Your task to perform on an android device: open app "TextNow: Call + Text Unlimited" (install if not already installed), go to login, and select forgot password Image 0: 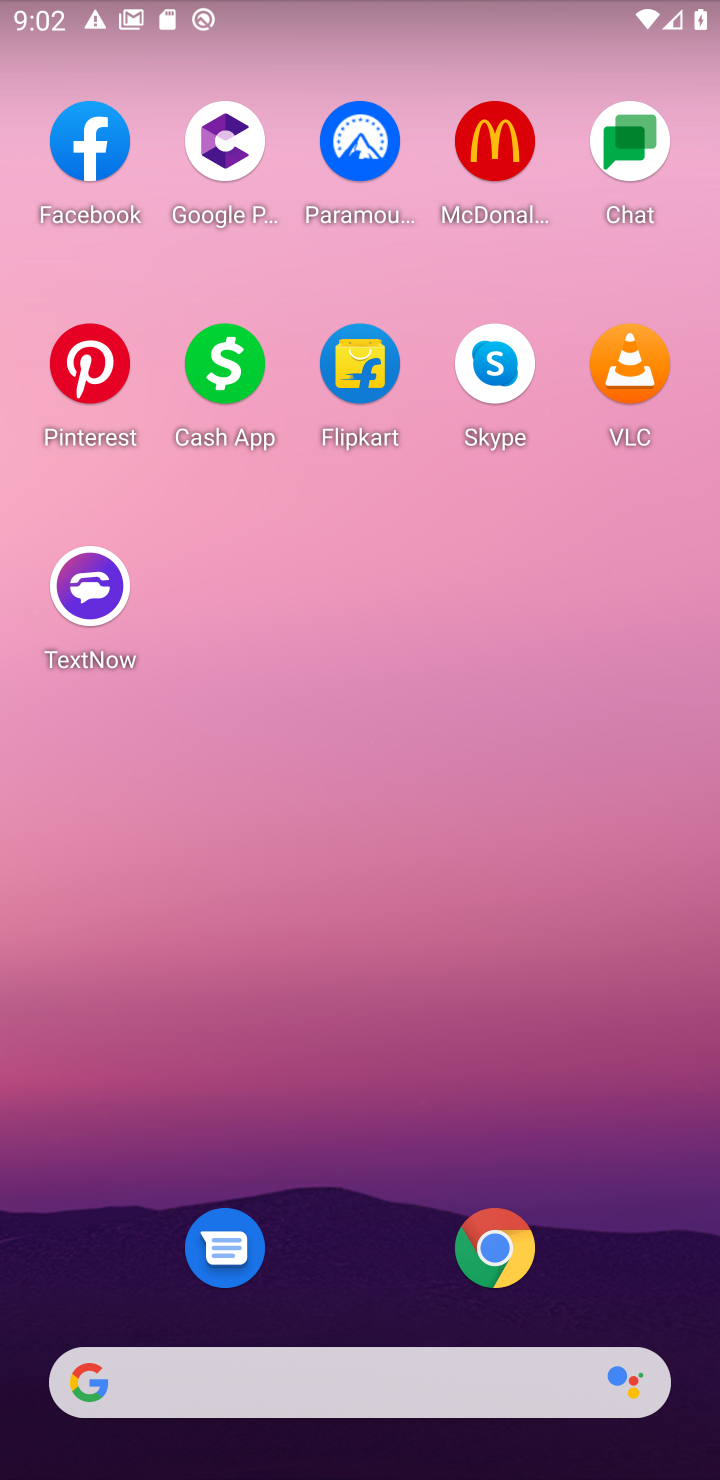
Step 0: drag from (388, 700) to (388, 113)
Your task to perform on an android device: open app "TextNow: Call + Text Unlimited" (install if not already installed), go to login, and select forgot password Image 1: 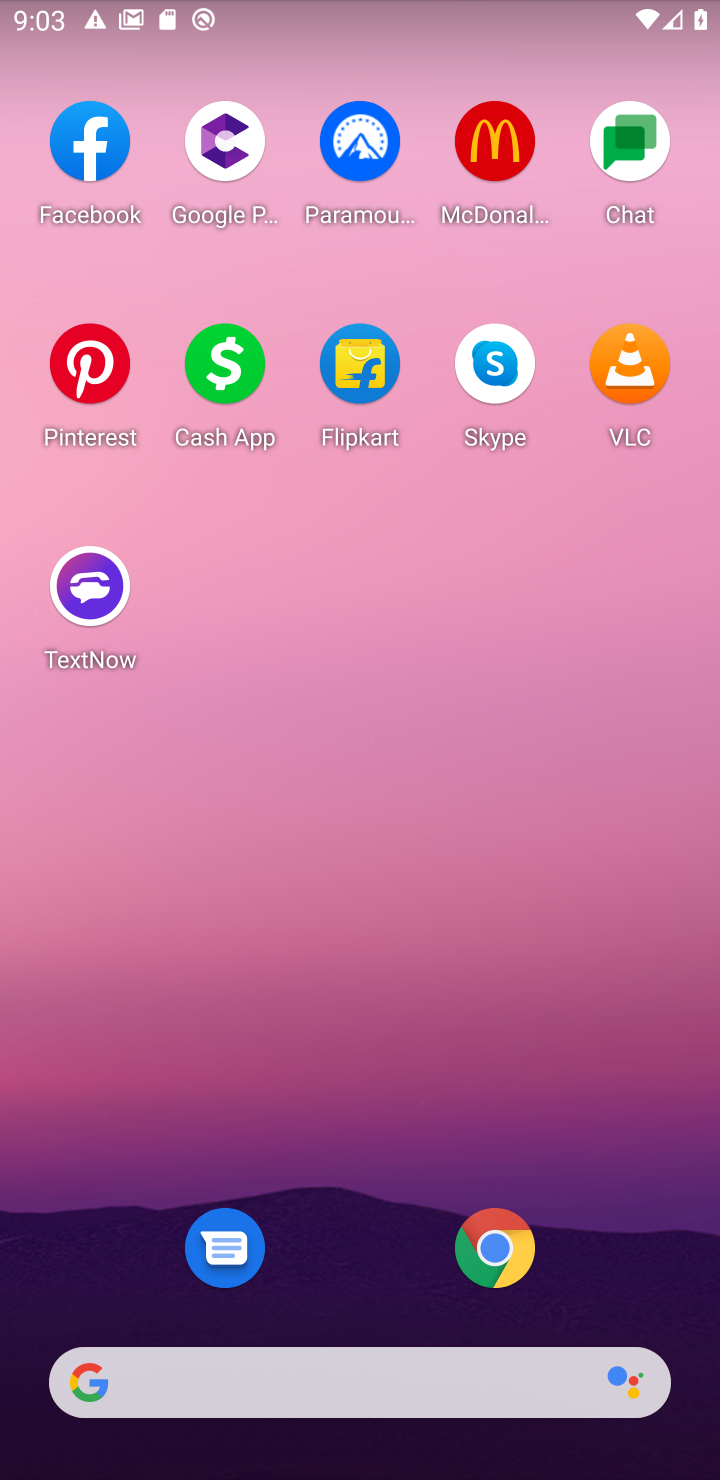
Step 1: drag from (356, 930) to (394, 158)
Your task to perform on an android device: open app "TextNow: Call + Text Unlimited" (install if not already installed), go to login, and select forgot password Image 2: 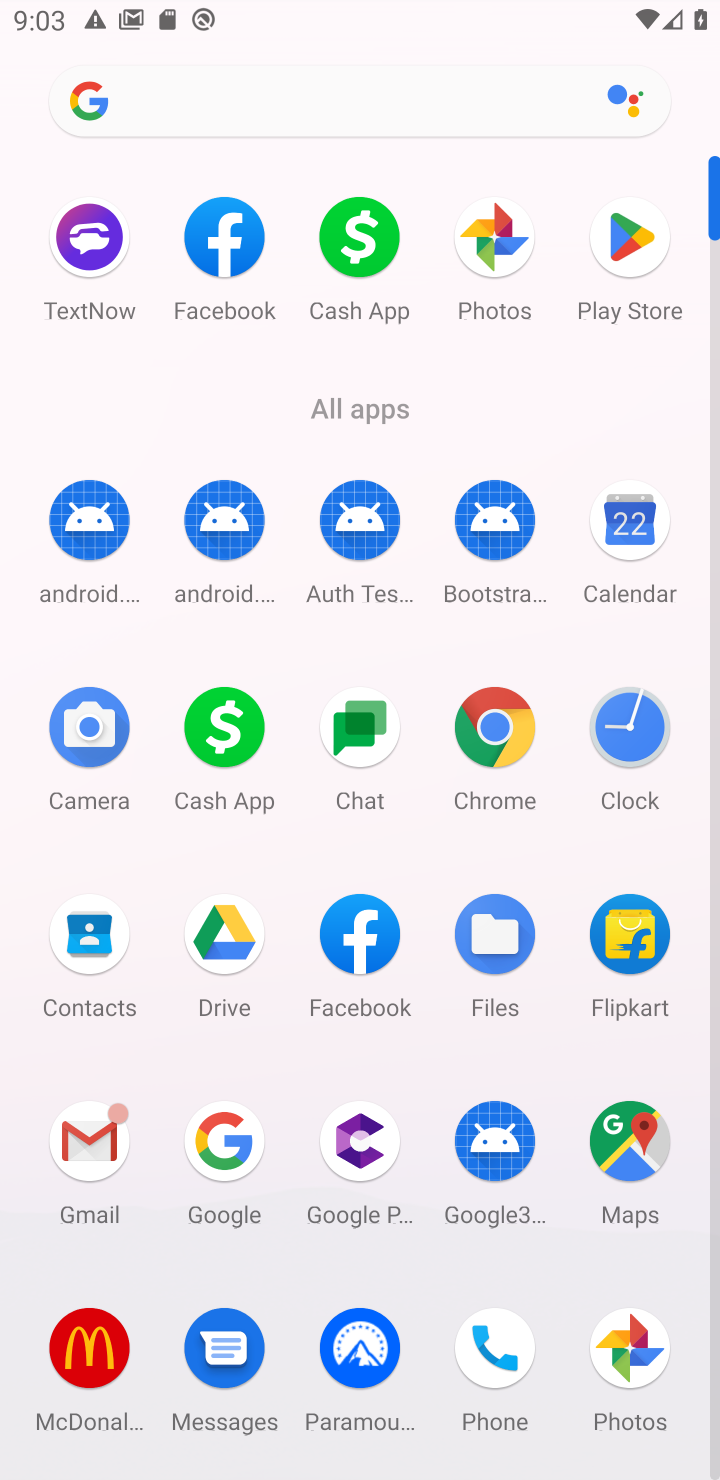
Step 2: click (634, 243)
Your task to perform on an android device: open app "TextNow: Call + Text Unlimited" (install if not already installed), go to login, and select forgot password Image 3: 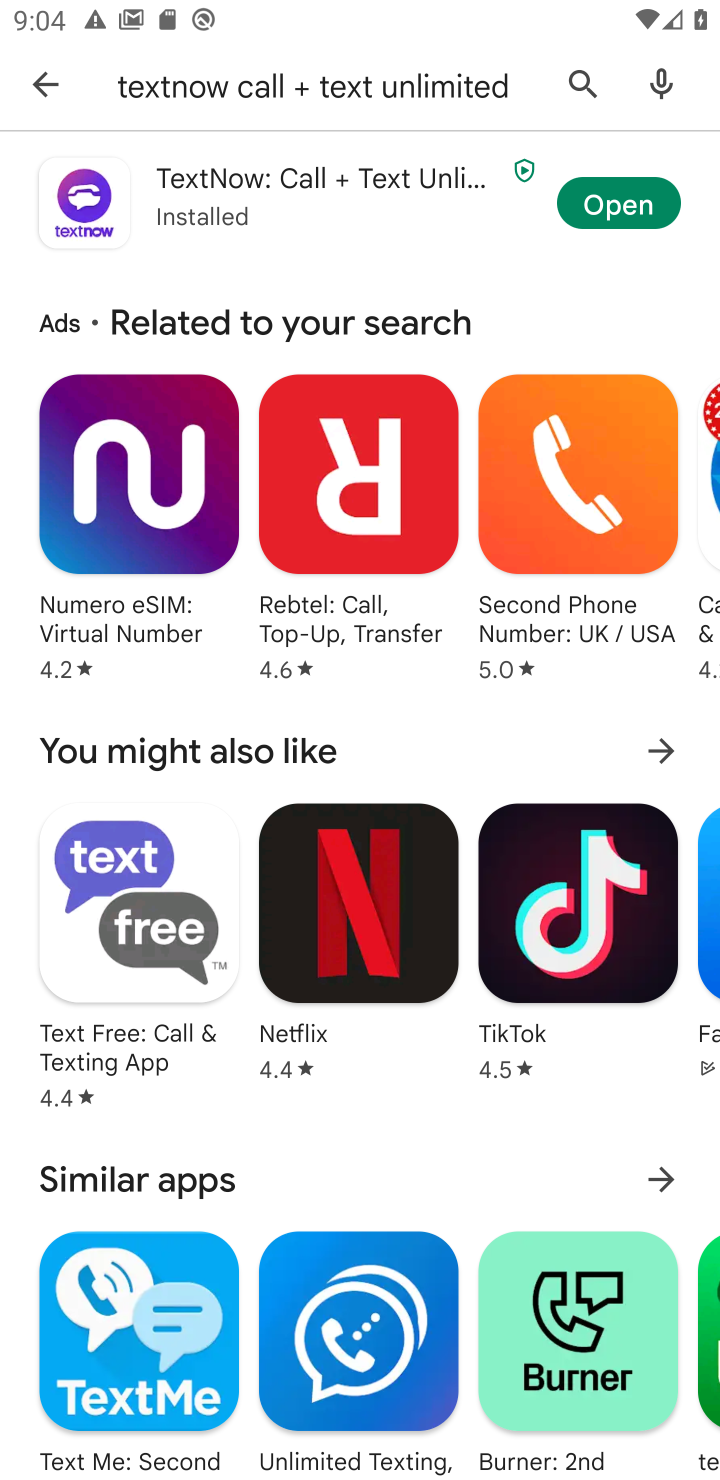
Step 3: click (640, 203)
Your task to perform on an android device: open app "TextNow: Call + Text Unlimited" (install if not already installed), go to login, and select forgot password Image 4: 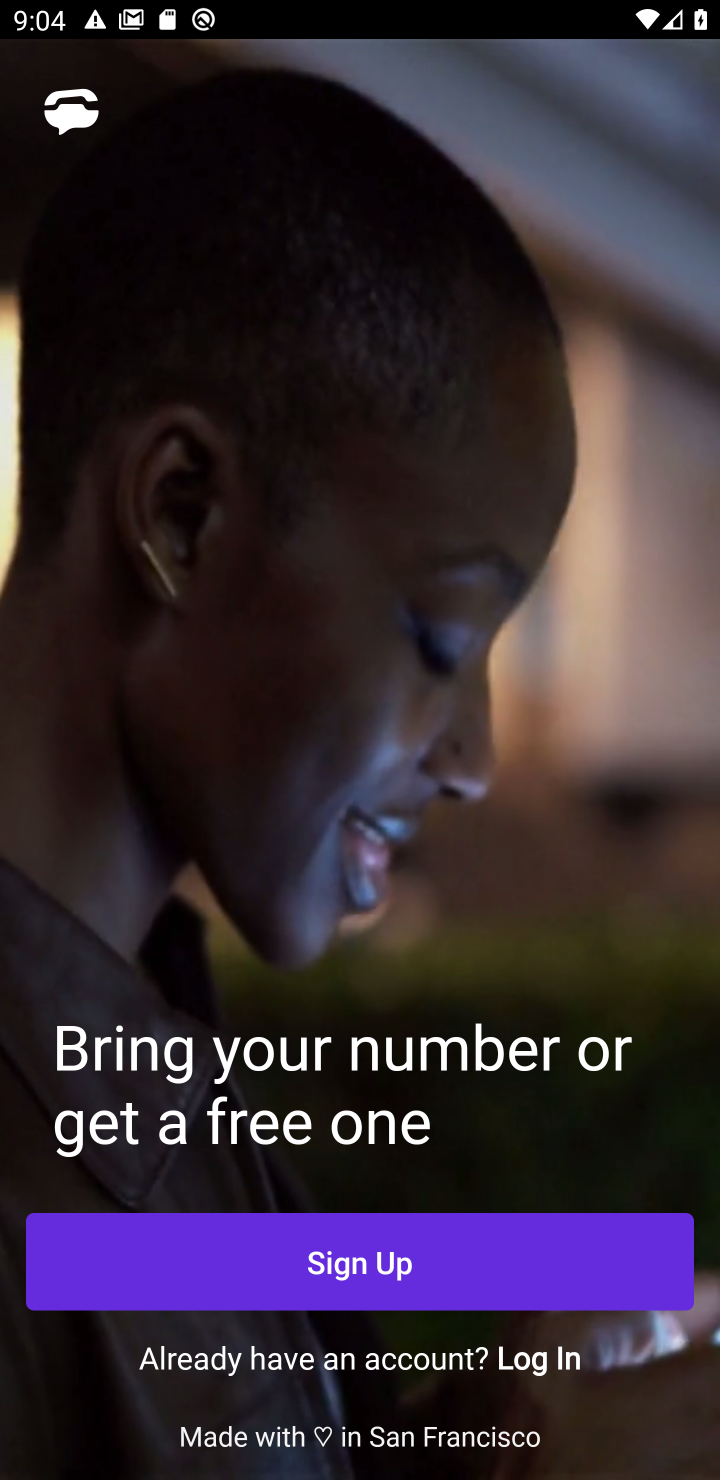
Step 4: task complete